Your task to perform on an android device: When is my next appointment? Image 0: 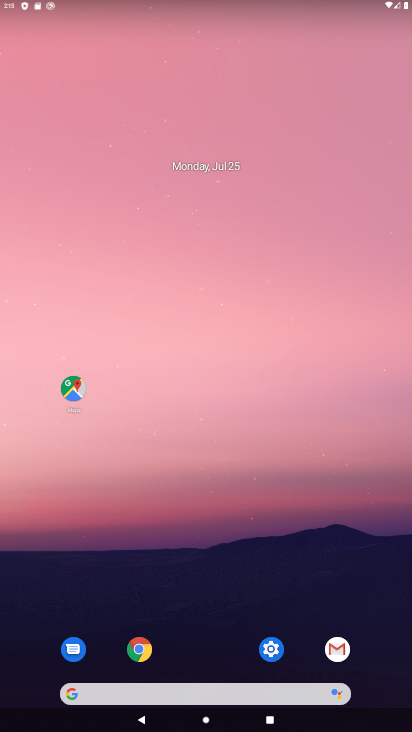
Step 0: drag from (262, 701) to (234, 187)
Your task to perform on an android device: When is my next appointment? Image 1: 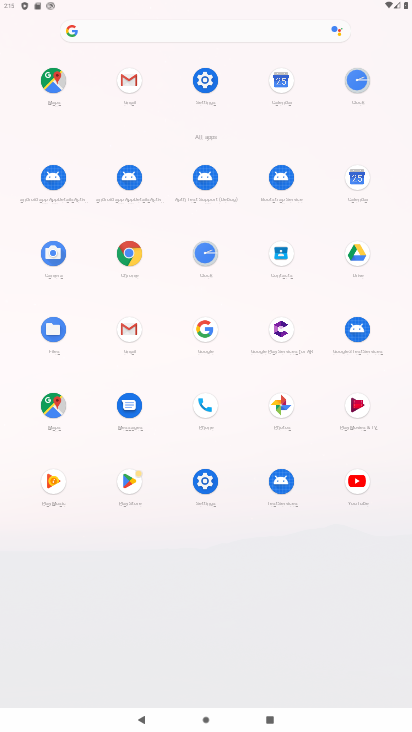
Step 1: click (361, 181)
Your task to perform on an android device: When is my next appointment? Image 2: 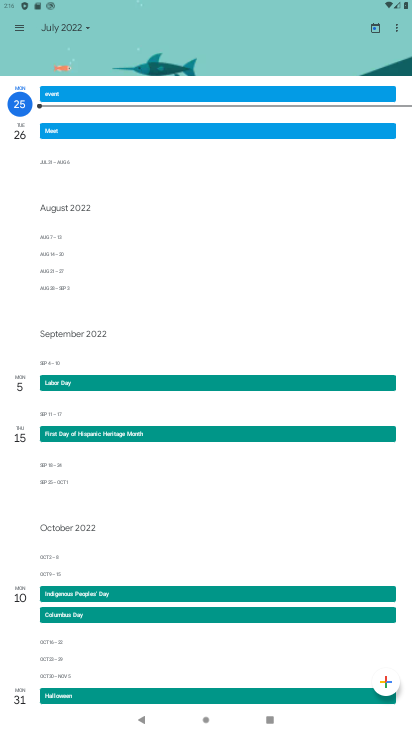
Step 2: task complete